Your task to perform on an android device: Search for the best 4K TV Image 0: 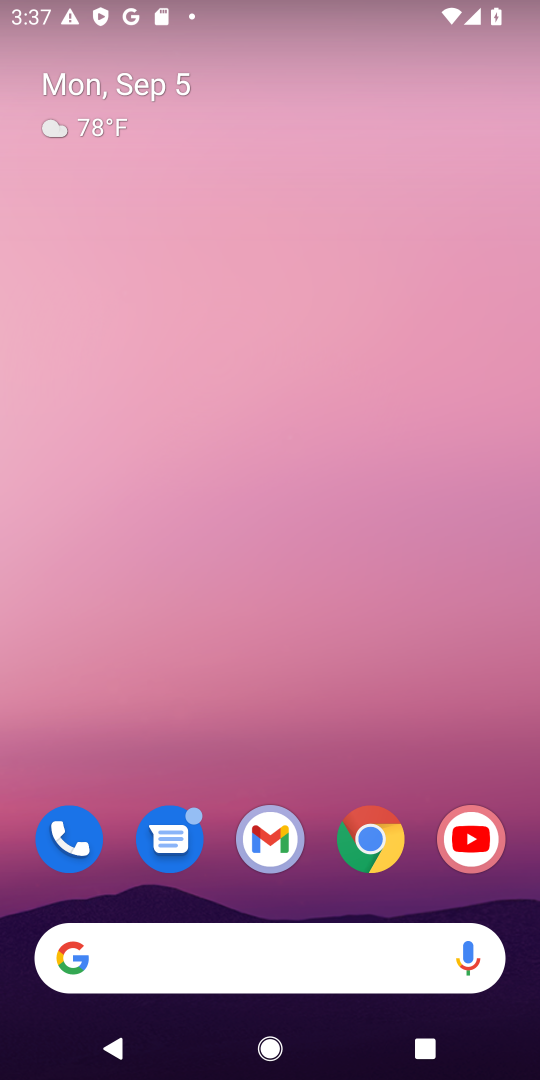
Step 0: click (327, 970)
Your task to perform on an android device: Search for the best 4K TV Image 1: 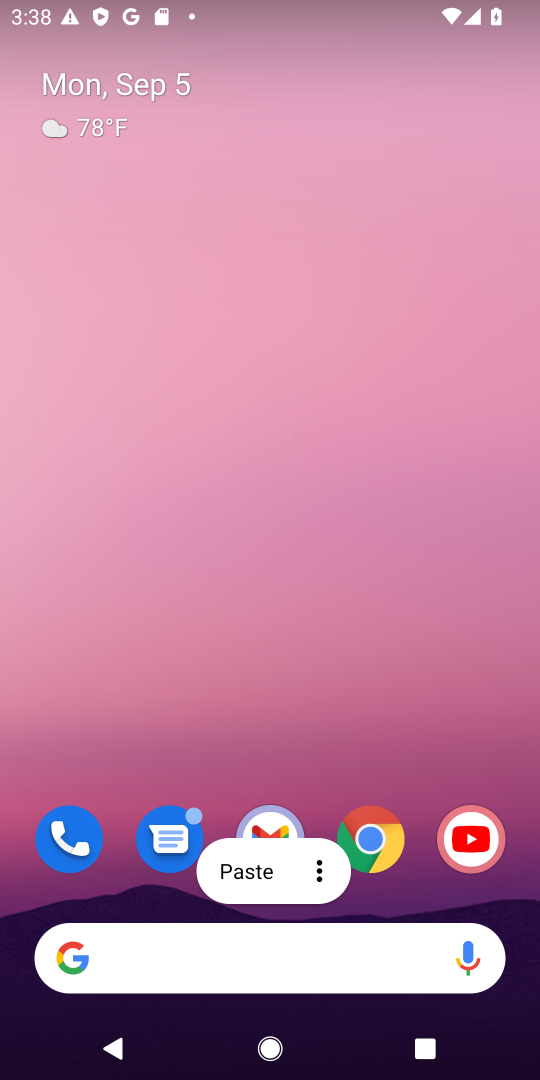
Step 1: click (328, 970)
Your task to perform on an android device: Search for the best 4K TV Image 2: 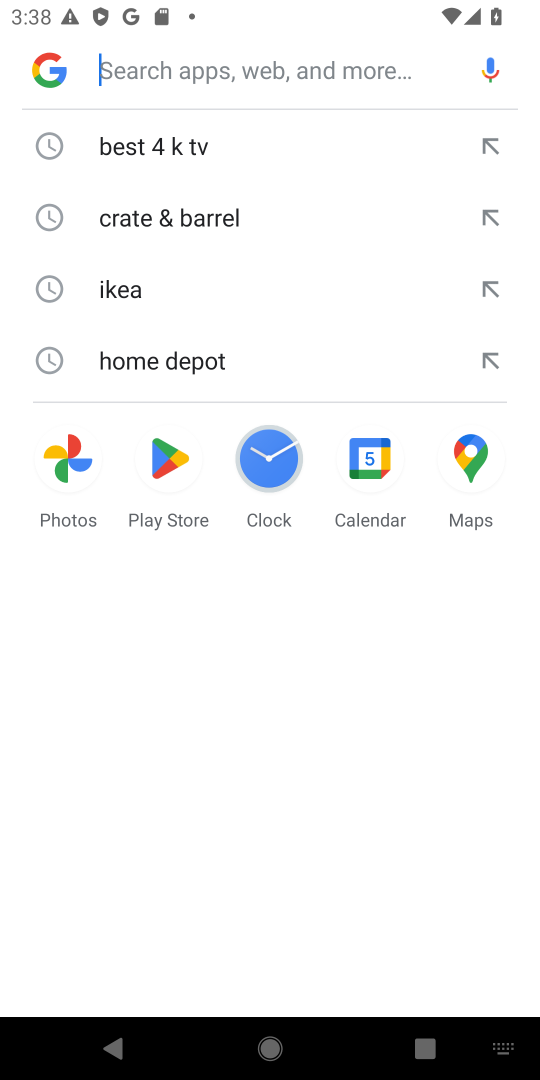
Step 2: click (209, 143)
Your task to perform on an android device: Search for the best 4K TV Image 3: 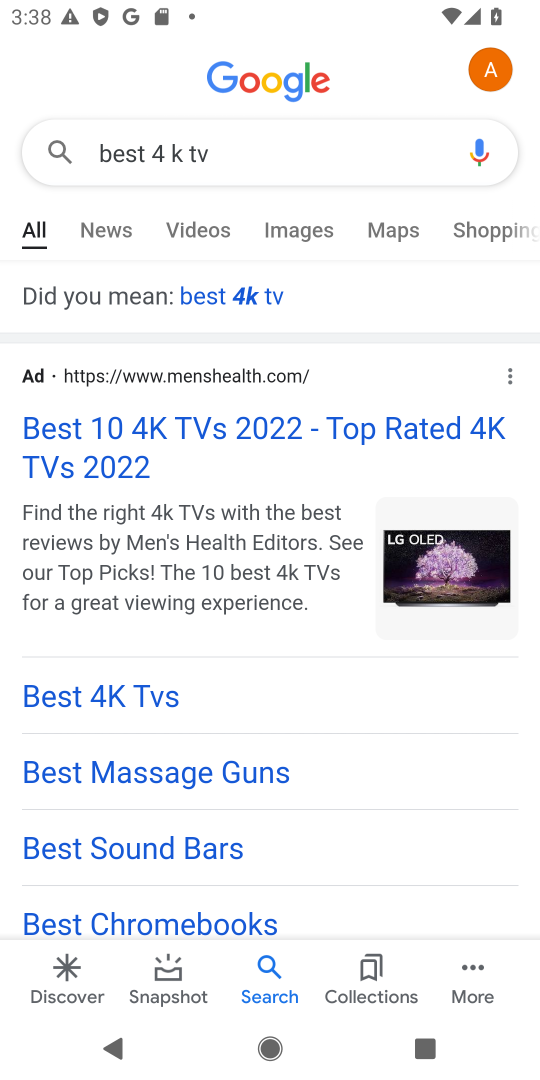
Step 3: drag from (255, 659) to (341, 177)
Your task to perform on an android device: Search for the best 4K TV Image 4: 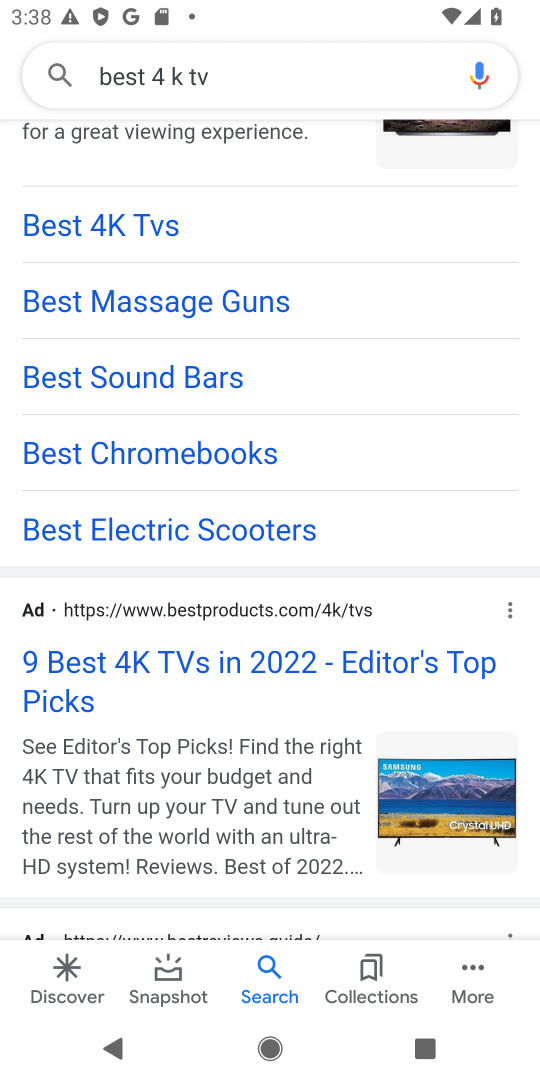
Step 4: click (204, 650)
Your task to perform on an android device: Search for the best 4K TV Image 5: 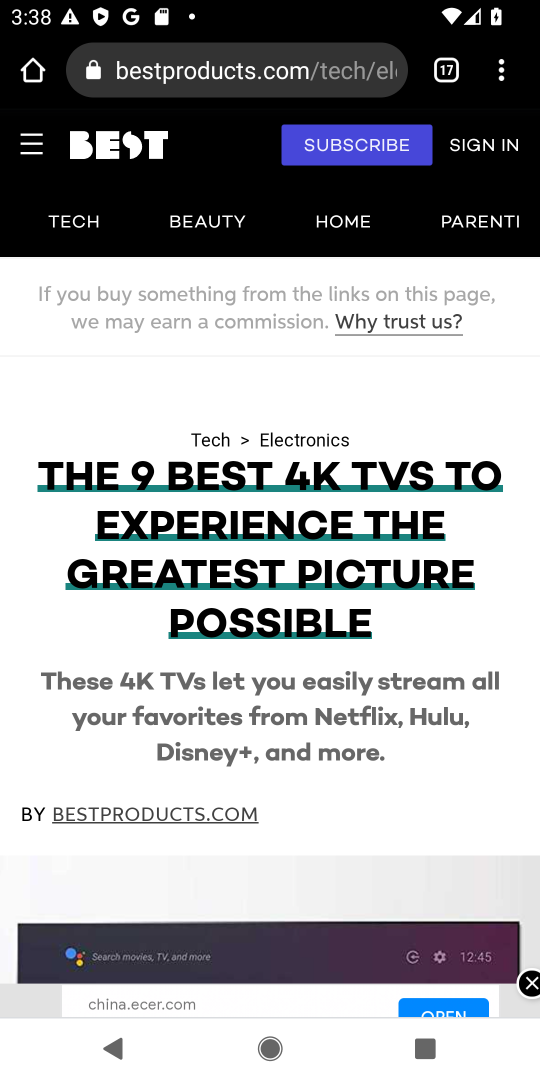
Step 5: drag from (20, 740) to (103, 169)
Your task to perform on an android device: Search for the best 4K TV Image 6: 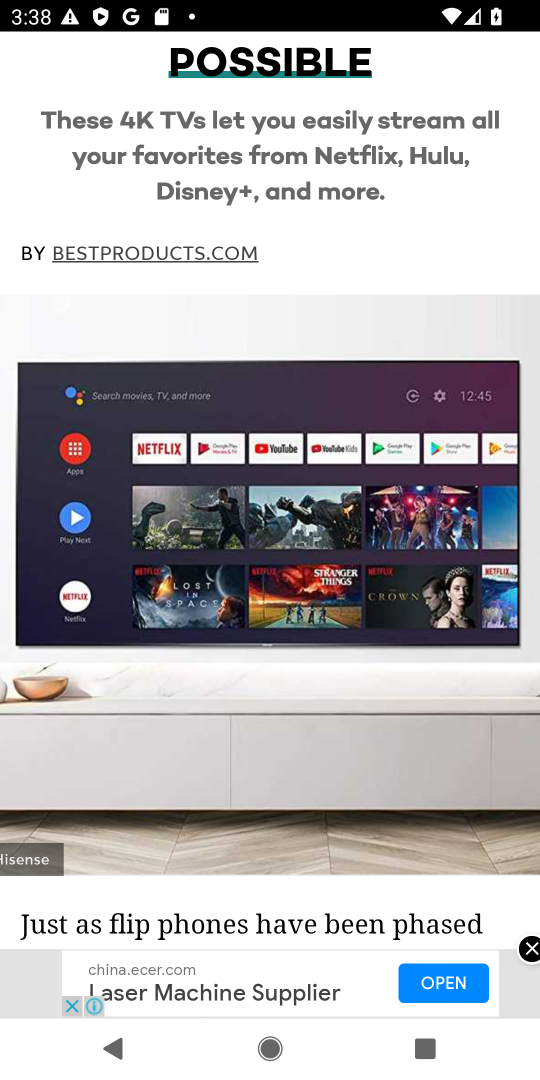
Step 6: drag from (80, 712) to (110, 171)
Your task to perform on an android device: Search for the best 4K TV Image 7: 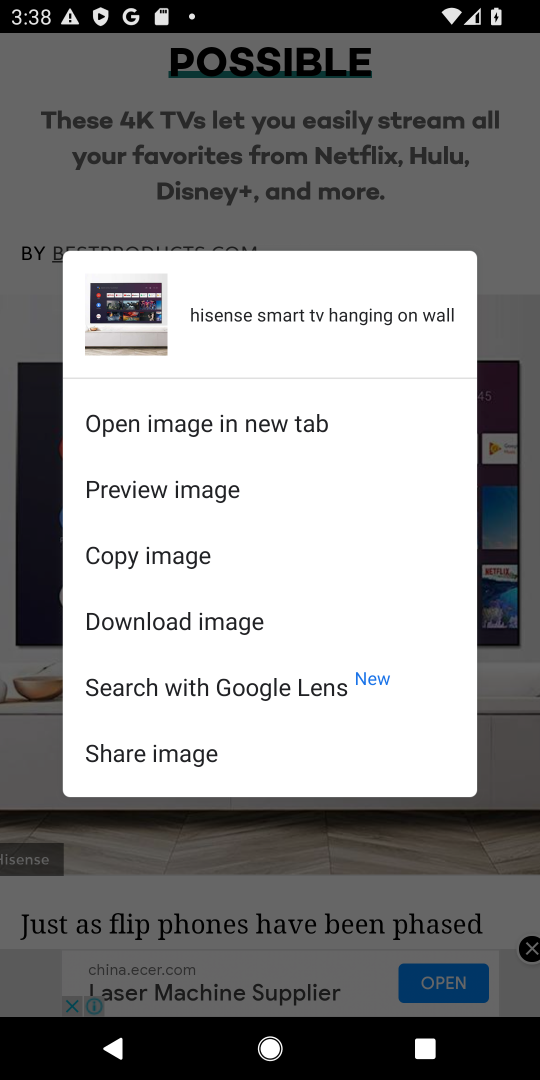
Step 7: click (90, 202)
Your task to perform on an android device: Search for the best 4K TV Image 8: 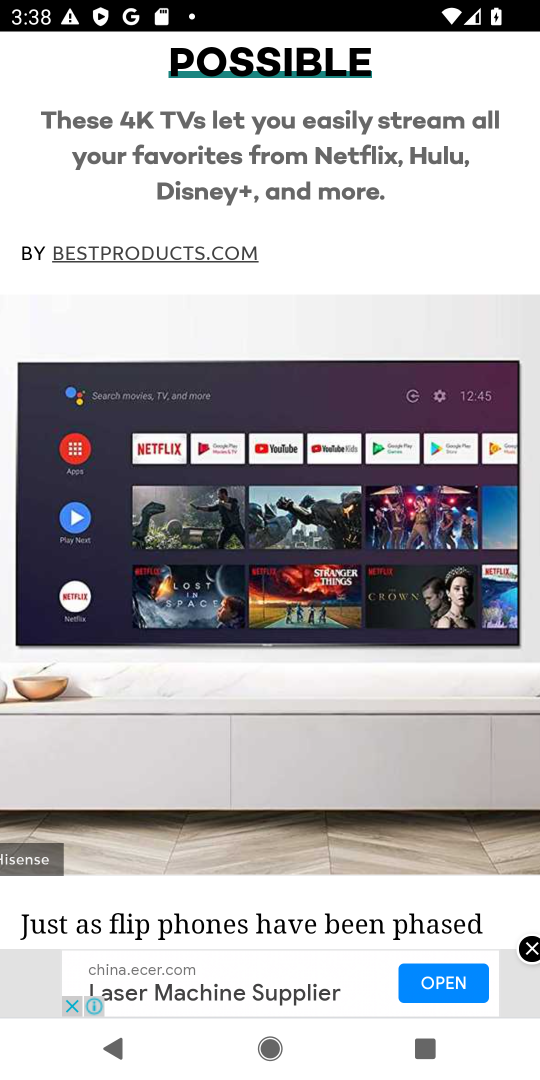
Step 8: drag from (91, 219) to (219, 17)
Your task to perform on an android device: Search for the best 4K TV Image 9: 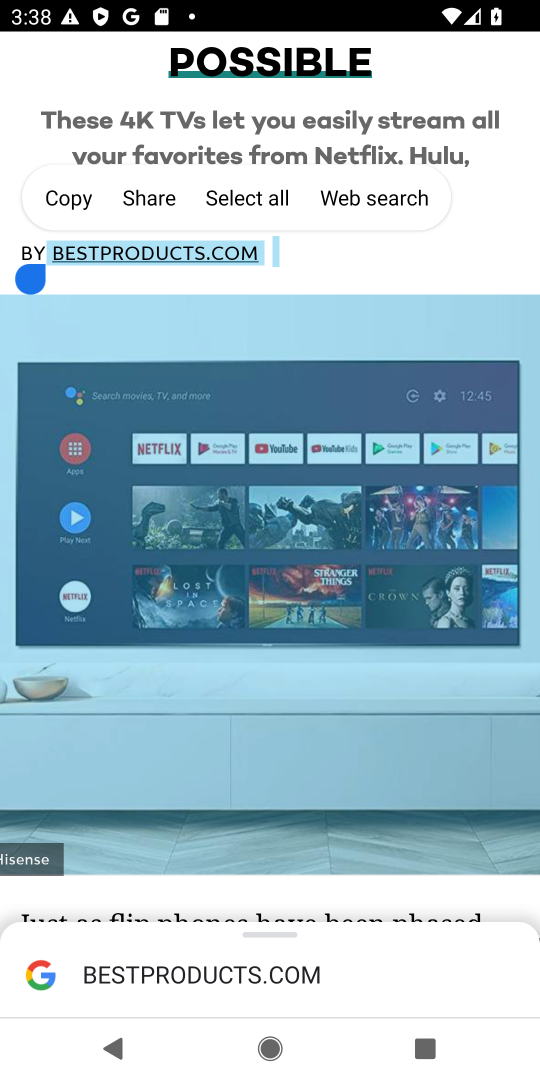
Step 9: drag from (366, 615) to (409, 196)
Your task to perform on an android device: Search for the best 4K TV Image 10: 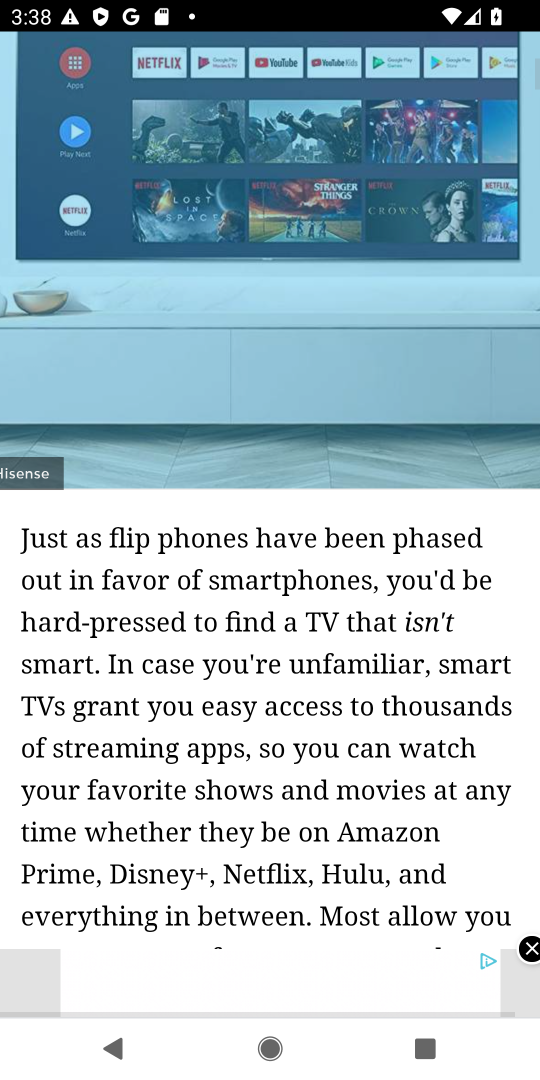
Step 10: click (482, 163)
Your task to perform on an android device: Search for the best 4K TV Image 11: 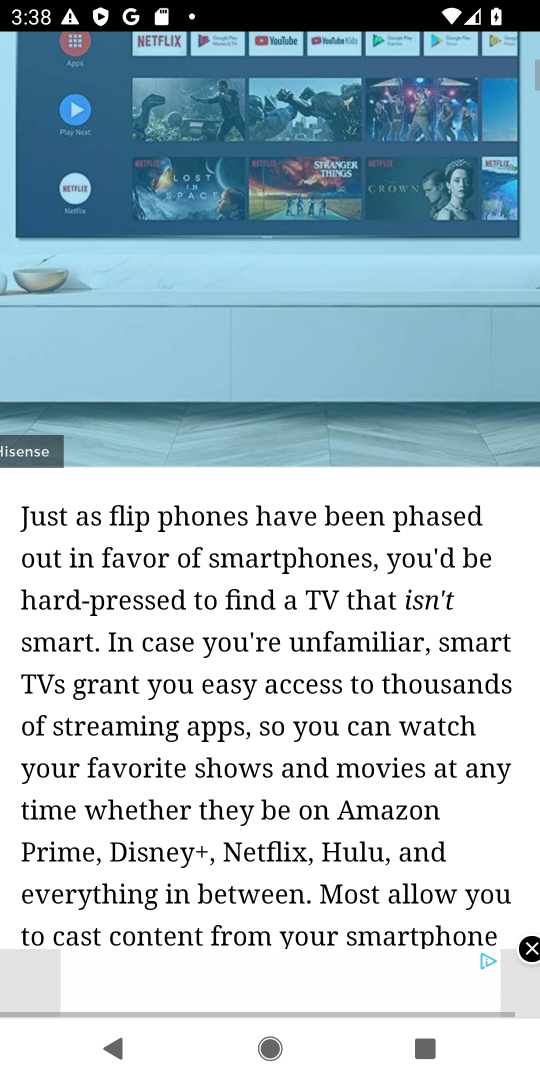
Step 11: drag from (482, 822) to (474, 609)
Your task to perform on an android device: Search for the best 4K TV Image 12: 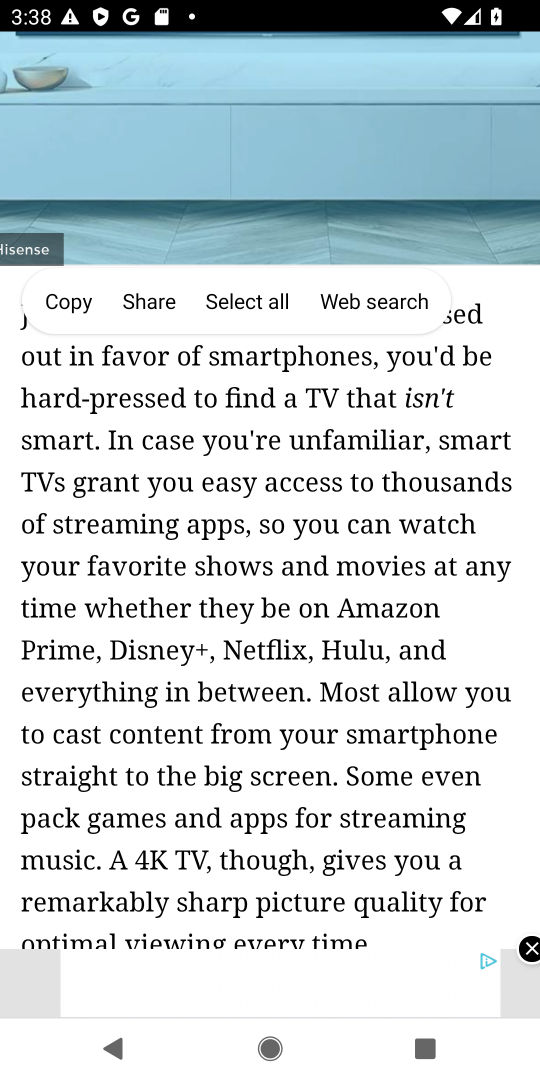
Step 12: press back button
Your task to perform on an android device: Search for the best 4K TV Image 13: 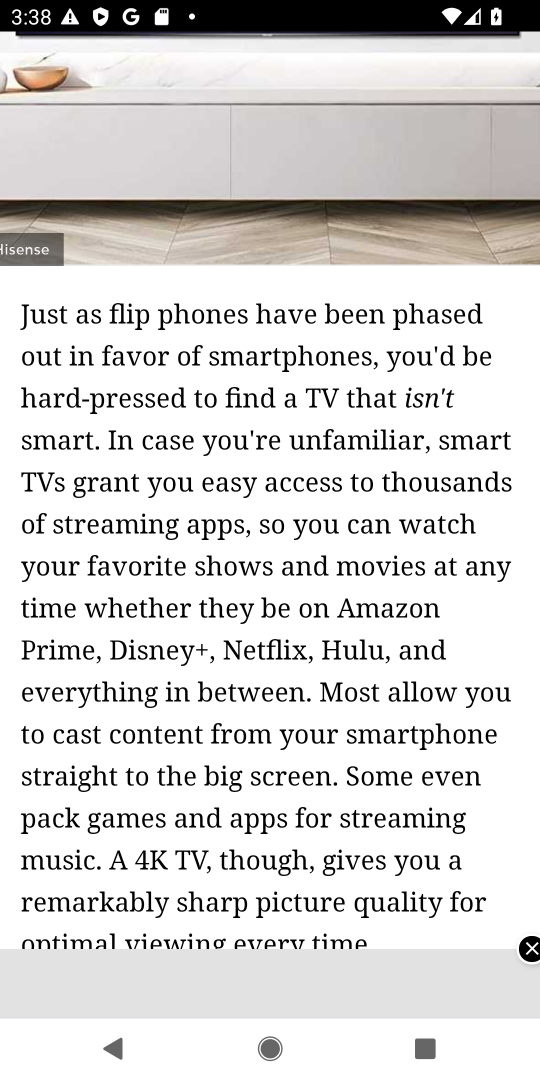
Step 13: press back button
Your task to perform on an android device: Search for the best 4K TV Image 14: 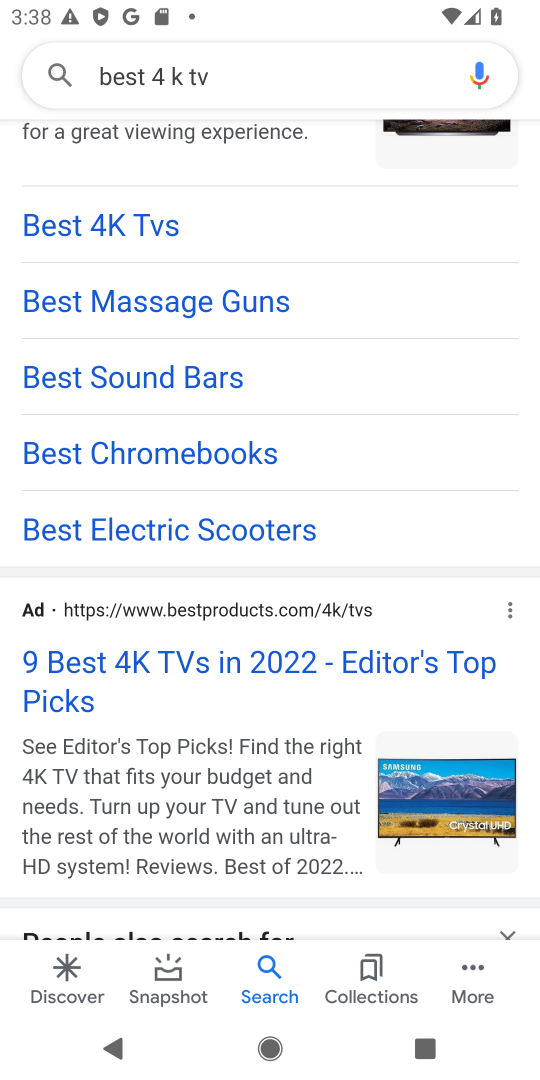
Step 14: drag from (341, 729) to (393, 193)
Your task to perform on an android device: Search for the best 4K TV Image 15: 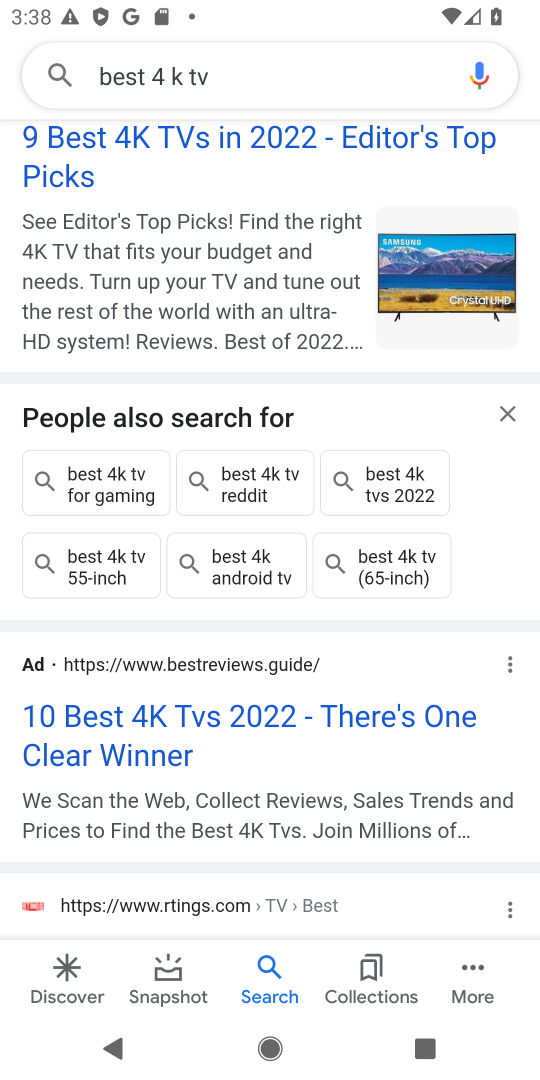
Step 15: drag from (395, 685) to (454, 314)
Your task to perform on an android device: Search for the best 4K TV Image 16: 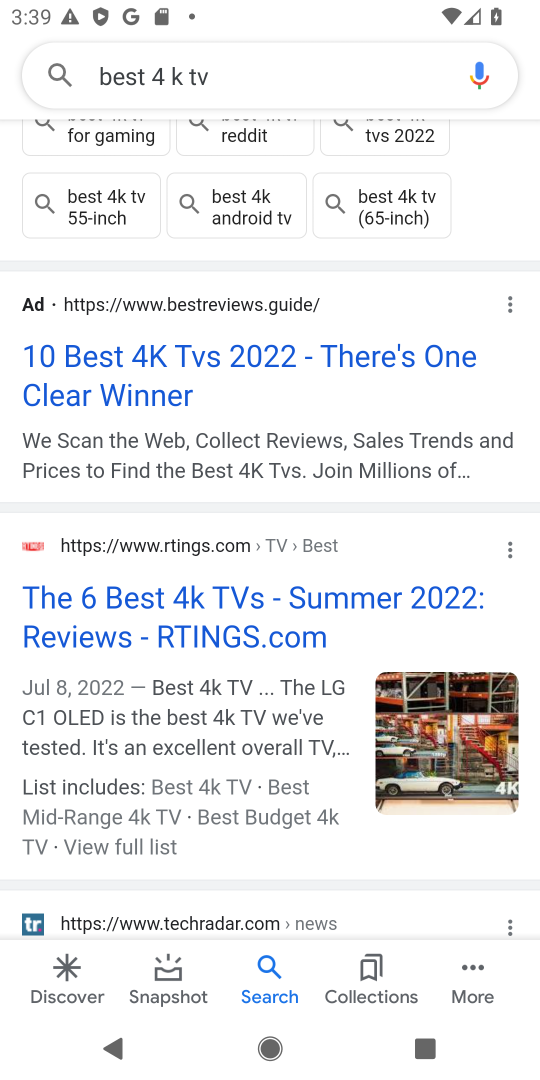
Step 16: drag from (370, 859) to (405, 409)
Your task to perform on an android device: Search for the best 4K TV Image 17: 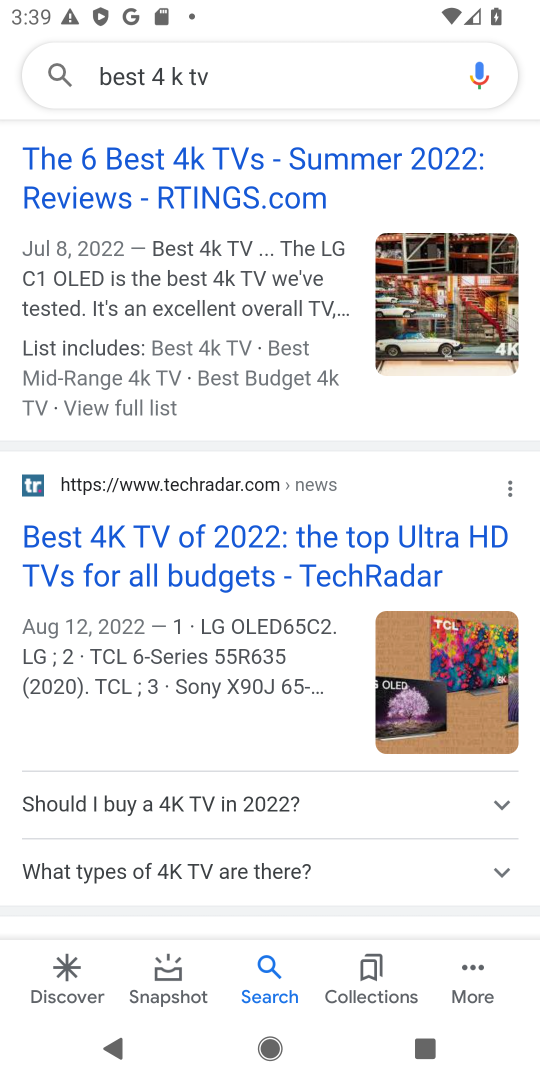
Step 17: click (202, 557)
Your task to perform on an android device: Search for the best 4K TV Image 18: 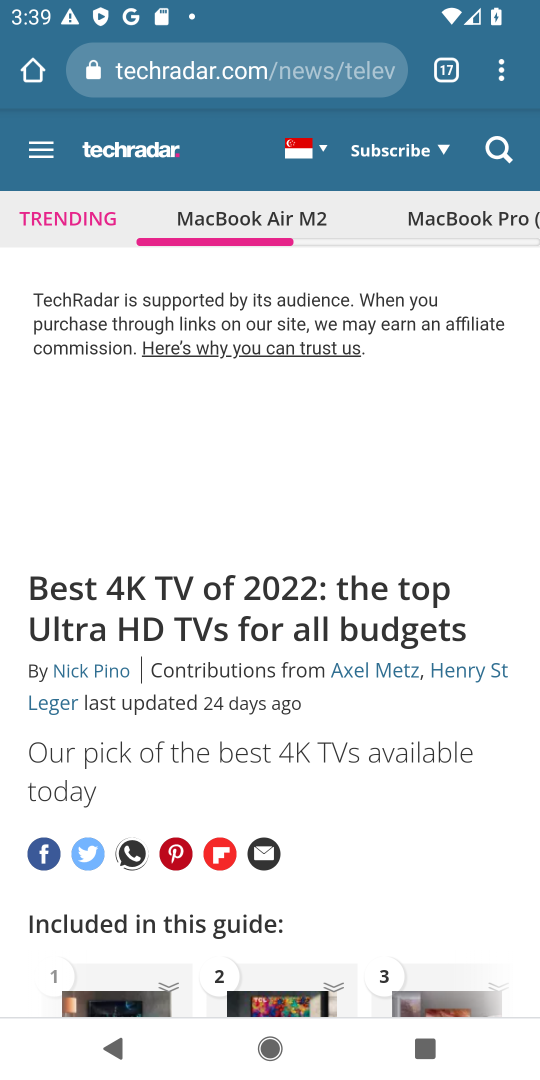
Step 18: task complete